Your task to perform on an android device: Open display settings Image 0: 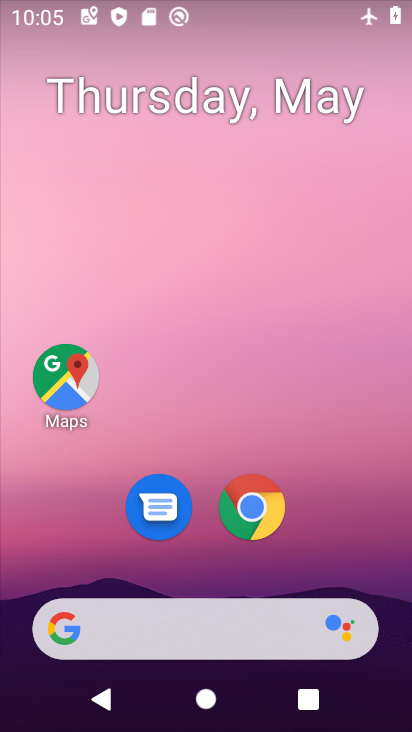
Step 0: drag from (200, 475) to (232, 102)
Your task to perform on an android device: Open display settings Image 1: 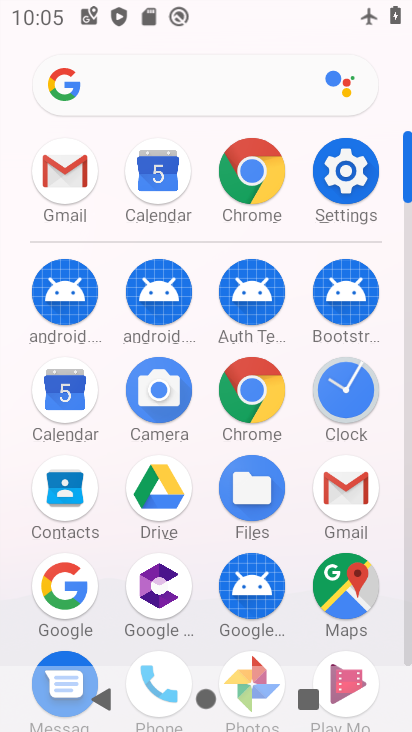
Step 1: click (347, 175)
Your task to perform on an android device: Open display settings Image 2: 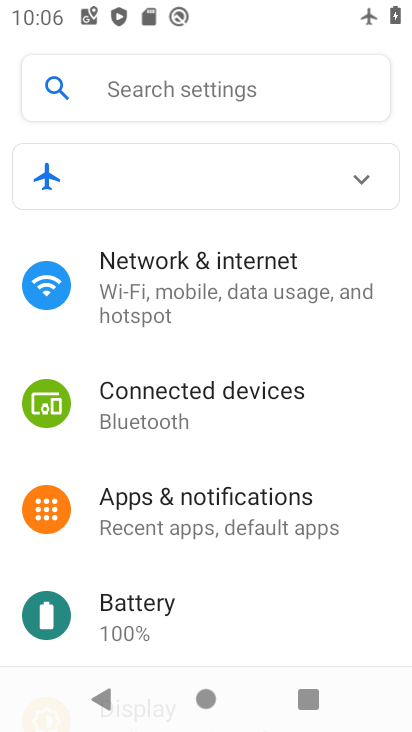
Step 2: drag from (262, 362) to (288, 49)
Your task to perform on an android device: Open display settings Image 3: 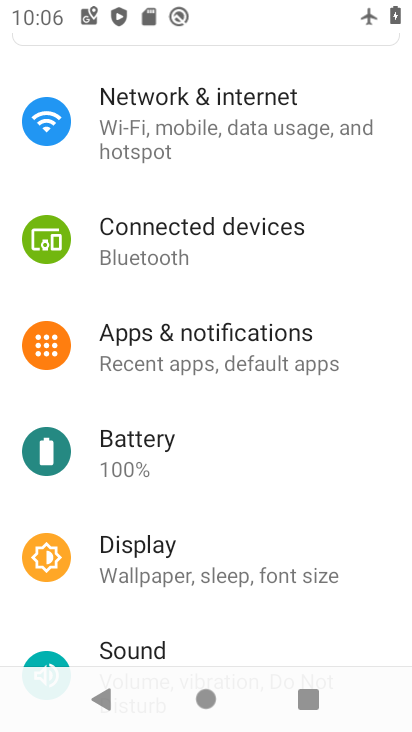
Step 3: click (208, 546)
Your task to perform on an android device: Open display settings Image 4: 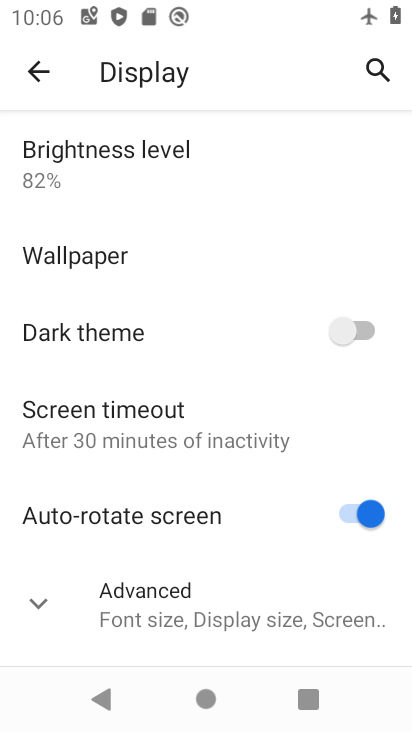
Step 4: click (234, 619)
Your task to perform on an android device: Open display settings Image 5: 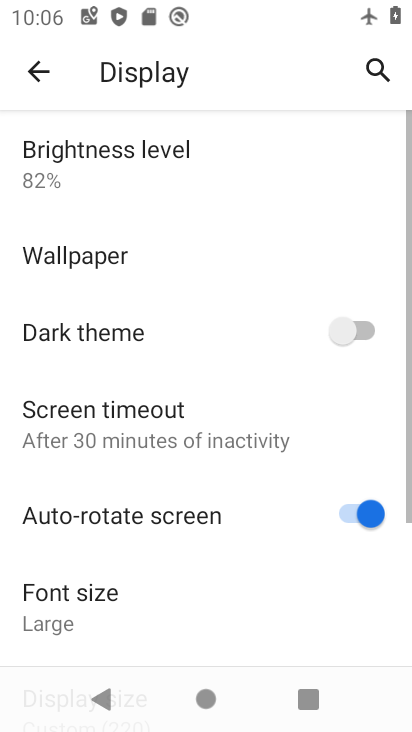
Step 5: task complete